Your task to perform on an android device: Go to CNN.com Image 0: 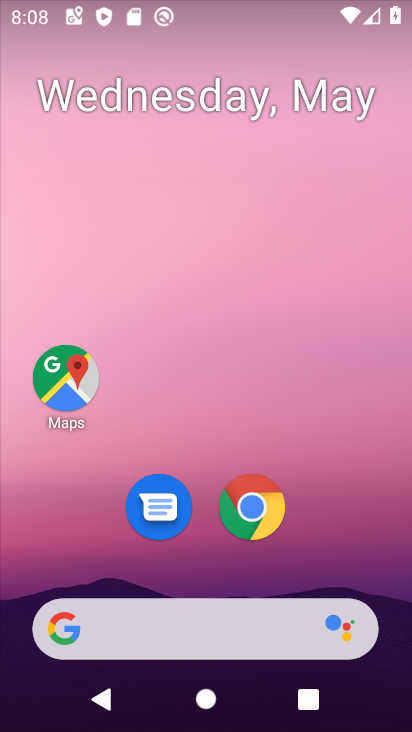
Step 0: click (255, 498)
Your task to perform on an android device: Go to CNN.com Image 1: 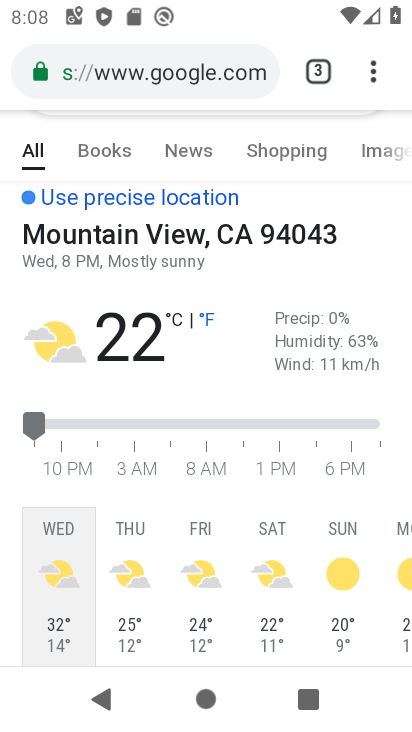
Step 1: click (378, 66)
Your task to perform on an android device: Go to CNN.com Image 2: 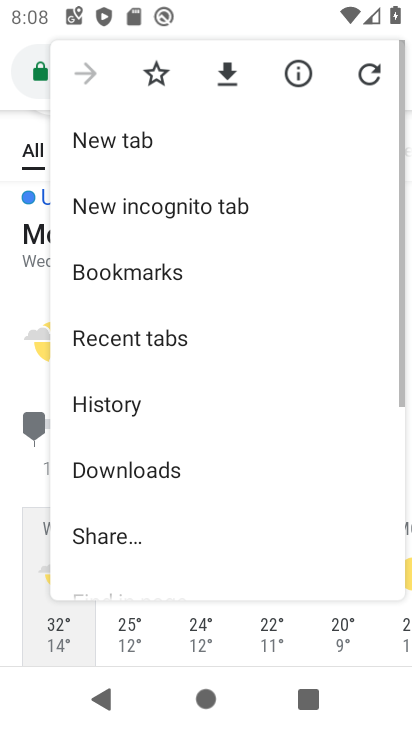
Step 2: click (120, 138)
Your task to perform on an android device: Go to CNN.com Image 3: 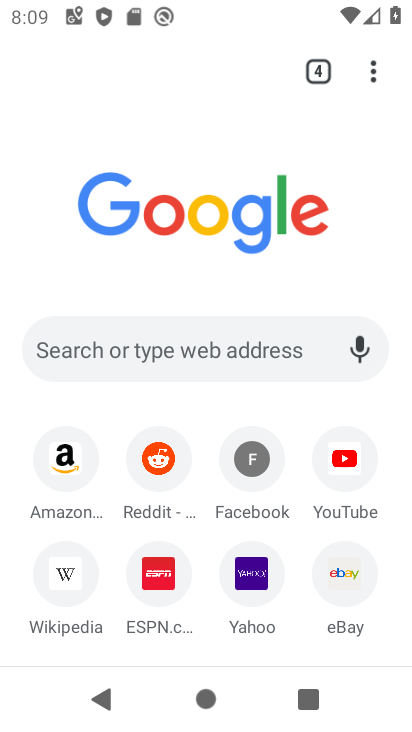
Step 3: click (216, 338)
Your task to perform on an android device: Go to CNN.com Image 4: 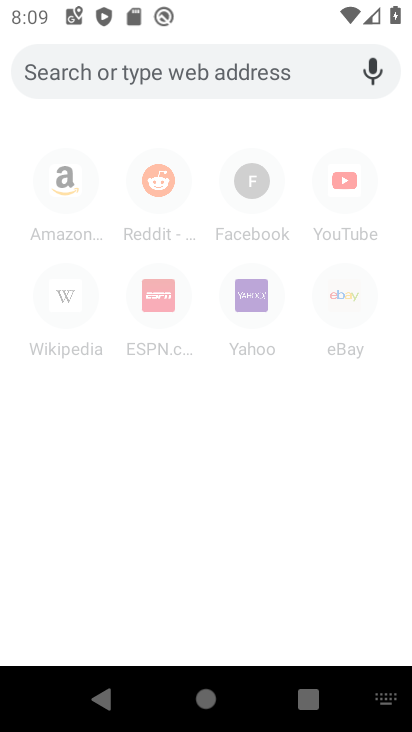
Step 4: type " CNN.com"
Your task to perform on an android device: Go to CNN.com Image 5: 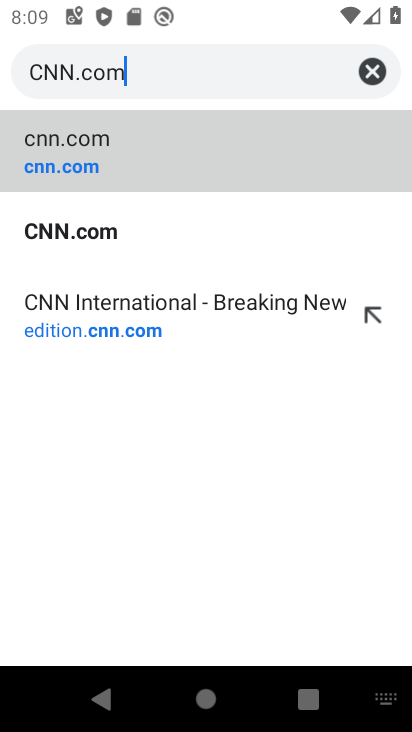
Step 5: click (207, 143)
Your task to perform on an android device: Go to CNN.com Image 6: 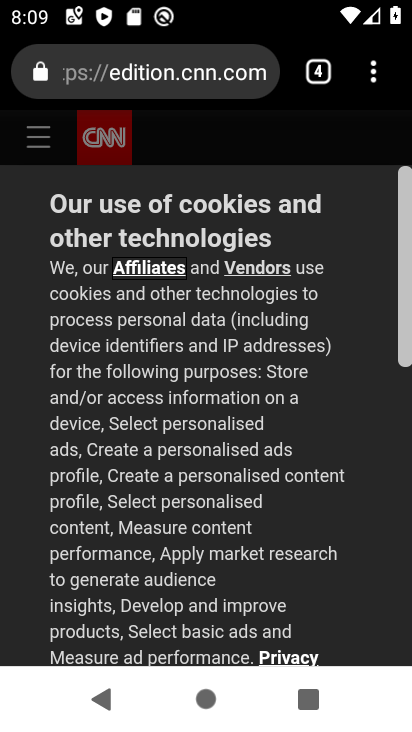
Step 6: task complete